Your task to perform on an android device: What is the news today? Image 0: 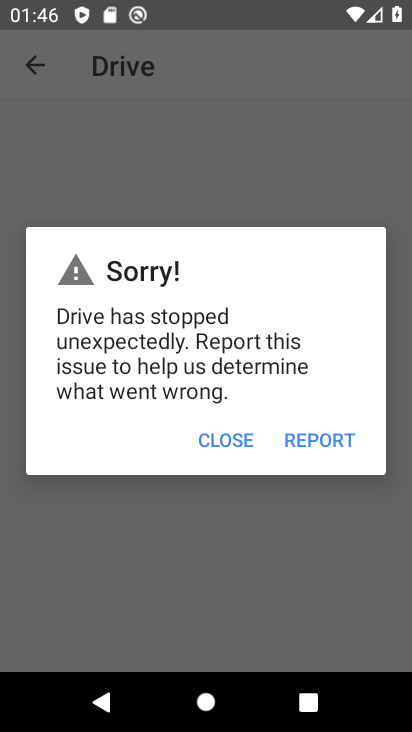
Step 0: click (107, 176)
Your task to perform on an android device: What is the news today? Image 1: 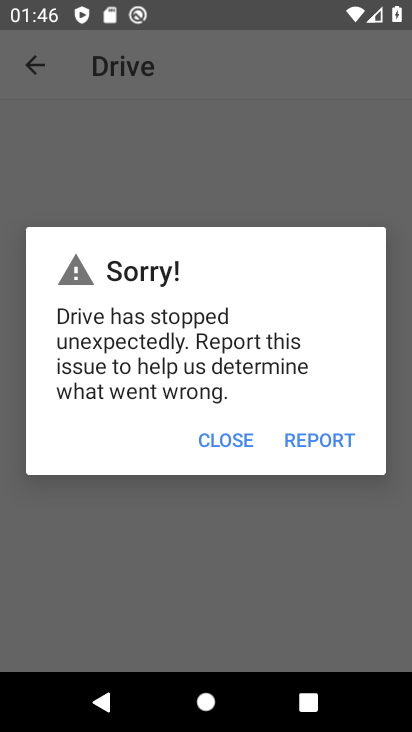
Step 1: click (191, 239)
Your task to perform on an android device: What is the news today? Image 2: 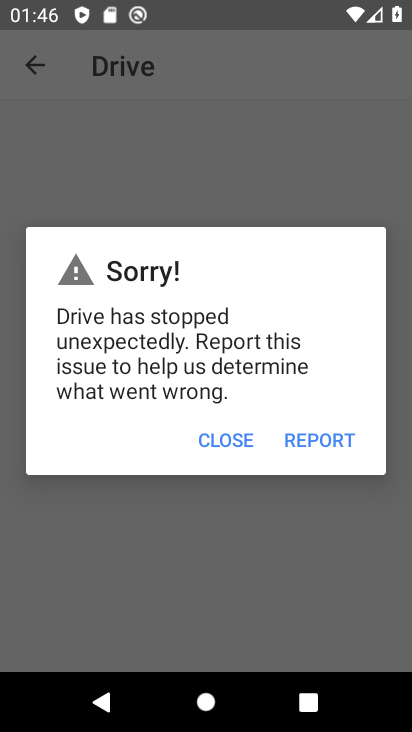
Step 2: click (158, 331)
Your task to perform on an android device: What is the news today? Image 3: 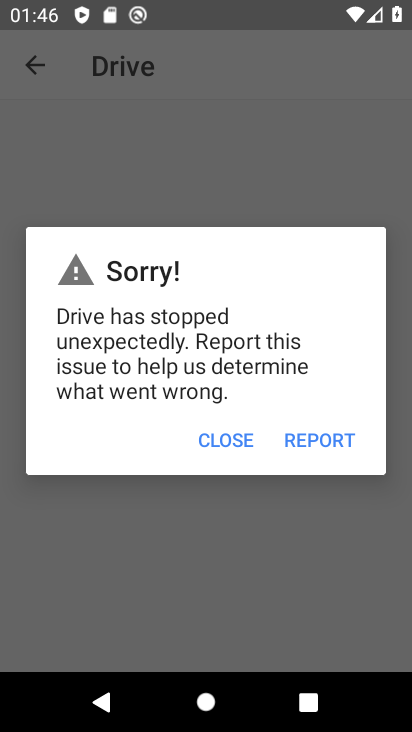
Step 3: press home button
Your task to perform on an android device: What is the news today? Image 4: 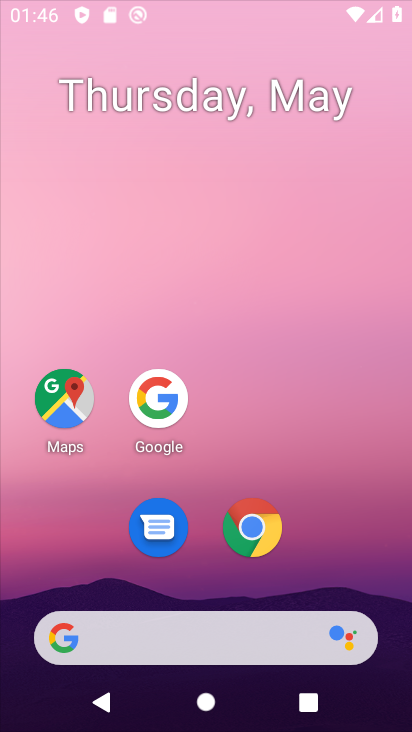
Step 4: drag from (201, 571) to (225, 24)
Your task to perform on an android device: What is the news today? Image 5: 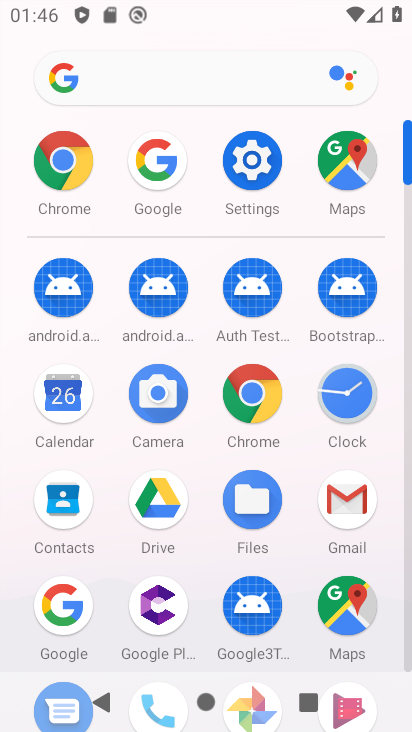
Step 5: drag from (194, 579) to (205, 217)
Your task to perform on an android device: What is the news today? Image 6: 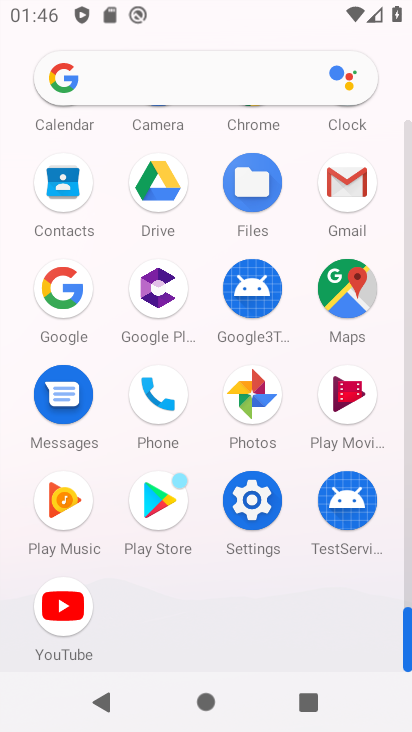
Step 6: click (135, 83)
Your task to perform on an android device: What is the news today? Image 7: 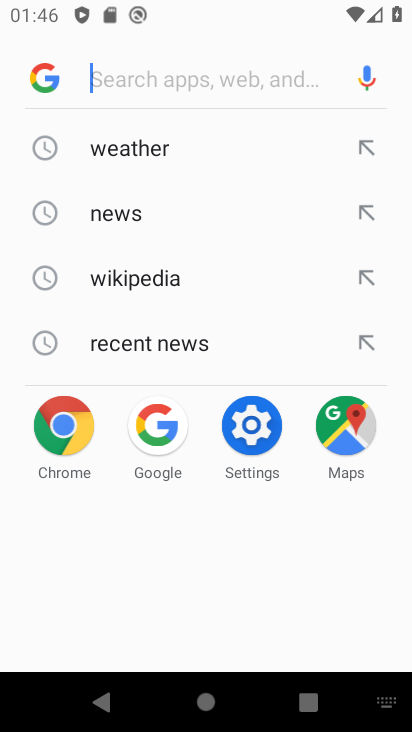
Step 7: type "news today"
Your task to perform on an android device: What is the news today? Image 8: 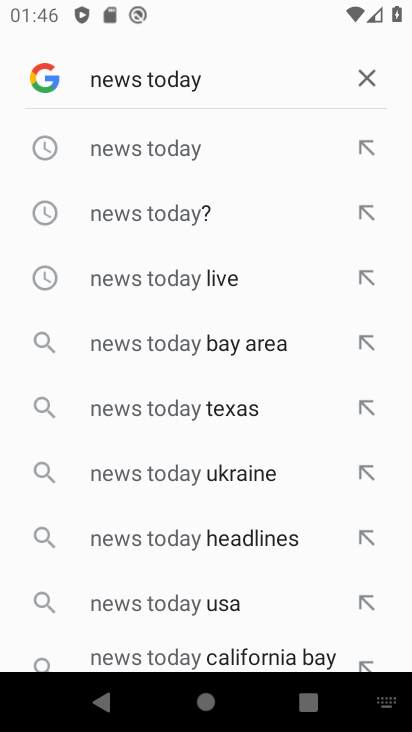
Step 8: click (197, 143)
Your task to perform on an android device: What is the news today? Image 9: 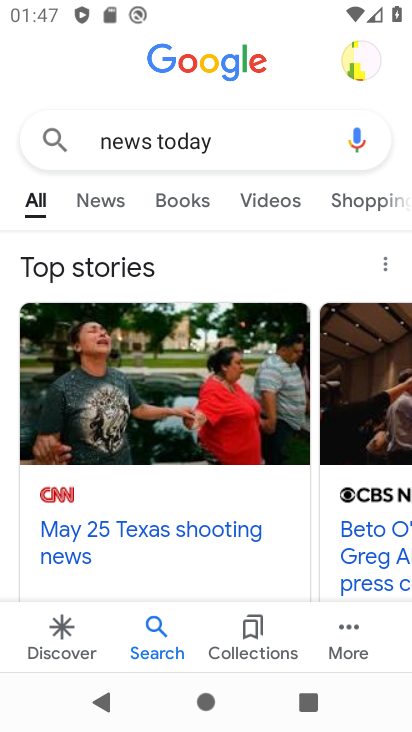
Step 9: task complete